Your task to perform on an android device: change the clock display to digital Image 0: 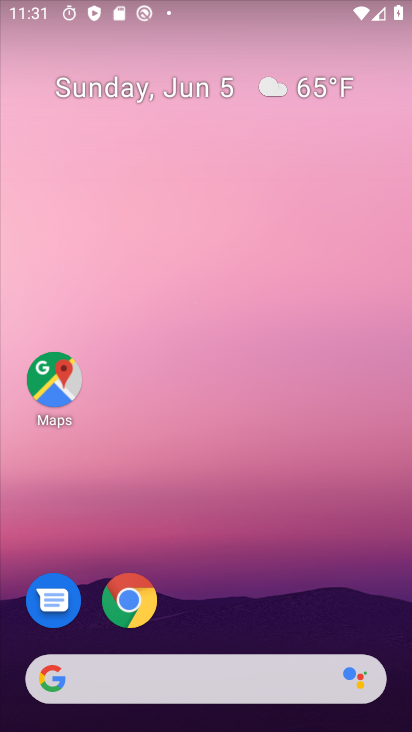
Step 0: drag from (209, 538) to (108, 34)
Your task to perform on an android device: change the clock display to digital Image 1: 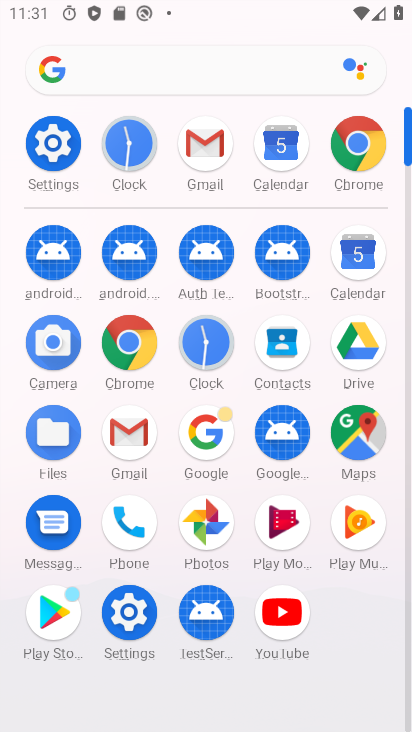
Step 1: click (213, 348)
Your task to perform on an android device: change the clock display to digital Image 2: 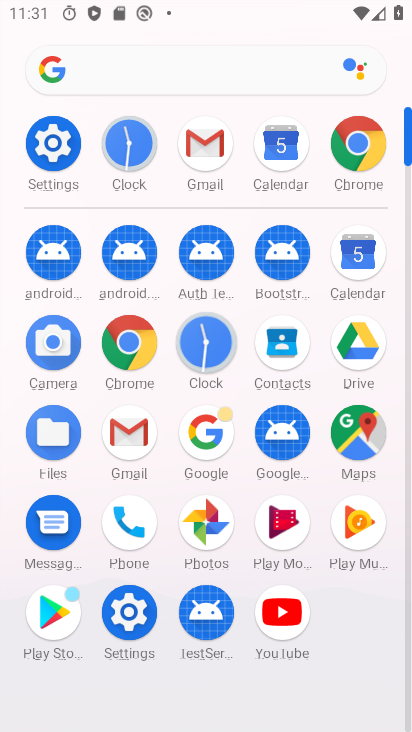
Step 2: click (212, 348)
Your task to perform on an android device: change the clock display to digital Image 3: 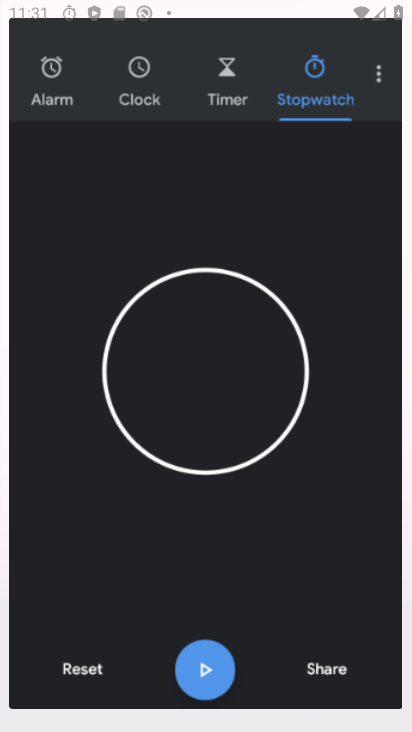
Step 3: click (212, 348)
Your task to perform on an android device: change the clock display to digital Image 4: 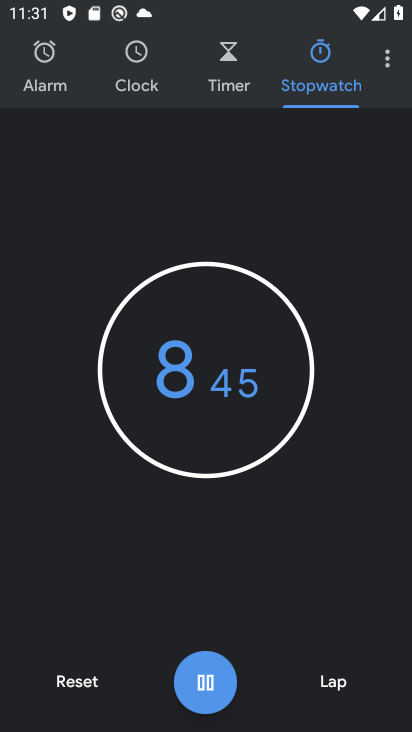
Step 4: click (207, 686)
Your task to perform on an android device: change the clock display to digital Image 5: 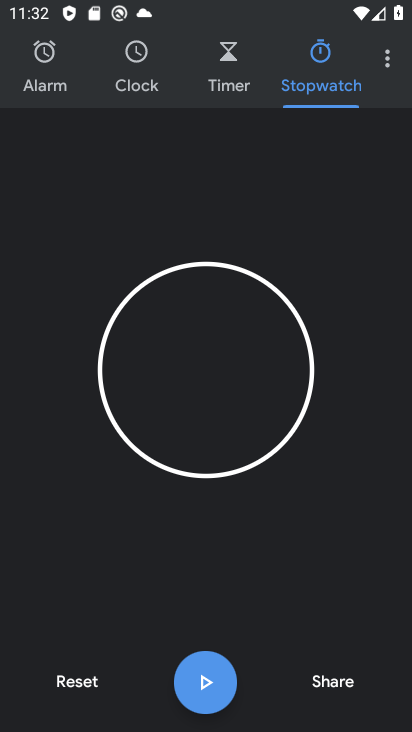
Step 5: click (389, 58)
Your task to perform on an android device: change the clock display to digital Image 6: 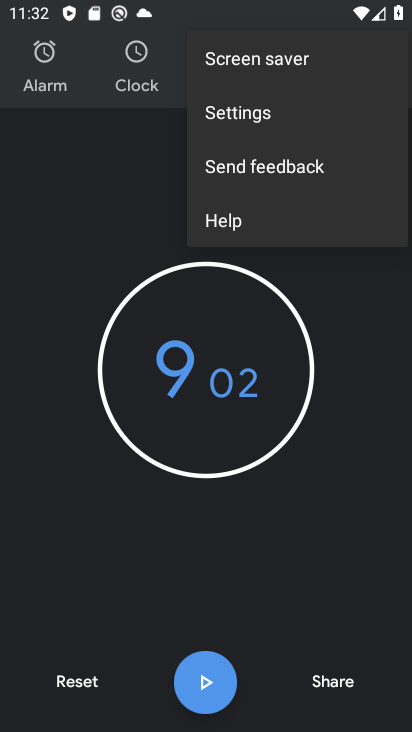
Step 6: click (231, 117)
Your task to perform on an android device: change the clock display to digital Image 7: 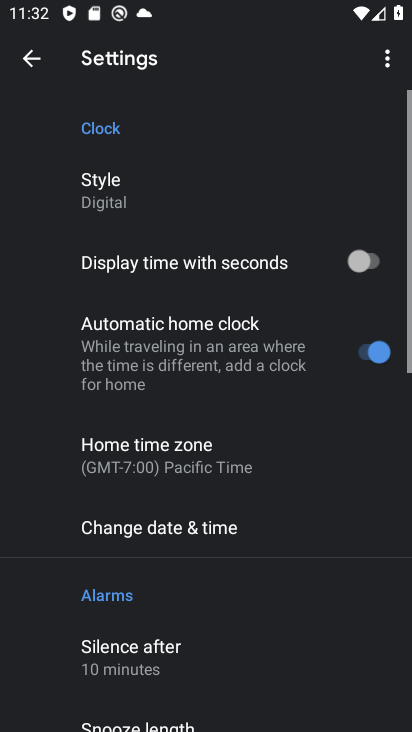
Step 7: click (138, 183)
Your task to perform on an android device: change the clock display to digital Image 8: 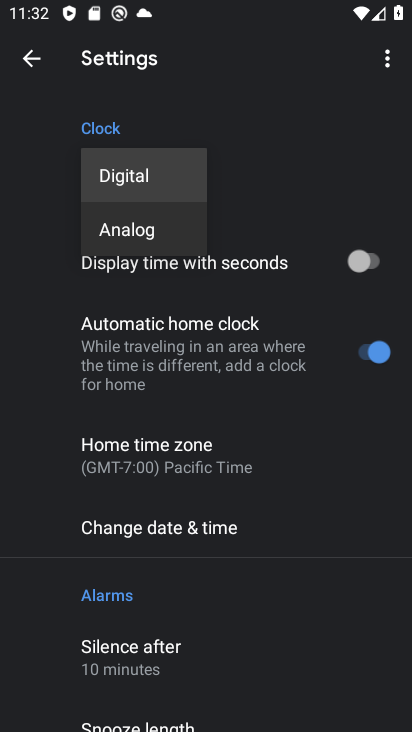
Step 8: click (119, 165)
Your task to perform on an android device: change the clock display to digital Image 9: 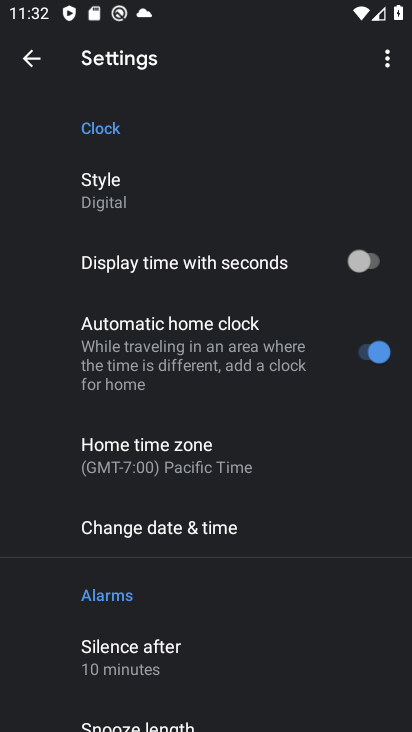
Step 9: task complete